Your task to perform on an android device: Open calendar and show me the first week of next month Image 0: 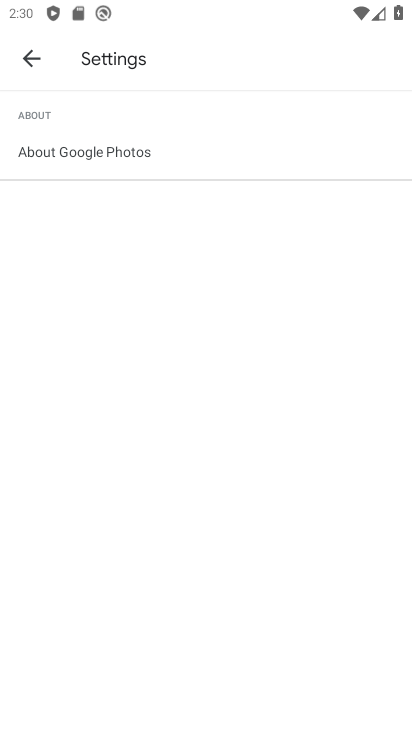
Step 0: press back button
Your task to perform on an android device: Open calendar and show me the first week of next month Image 1: 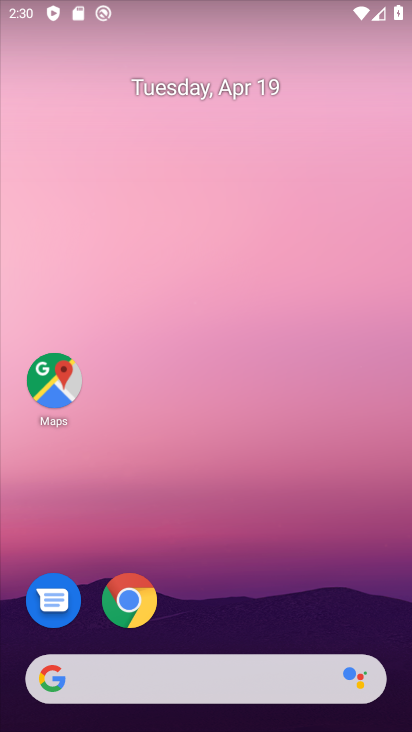
Step 1: drag from (344, 604) to (328, 136)
Your task to perform on an android device: Open calendar and show me the first week of next month Image 2: 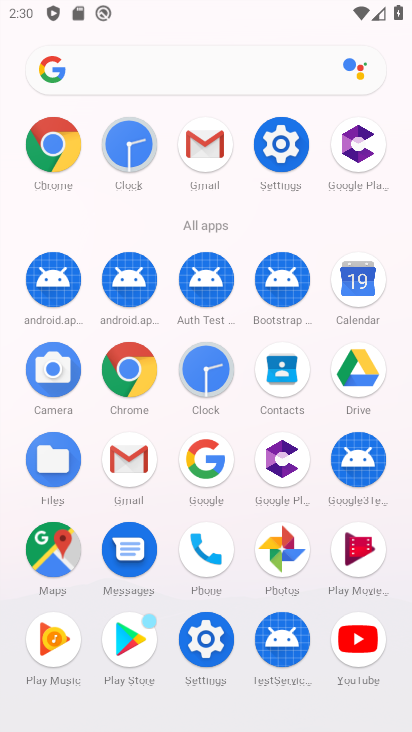
Step 2: click (363, 279)
Your task to perform on an android device: Open calendar and show me the first week of next month Image 3: 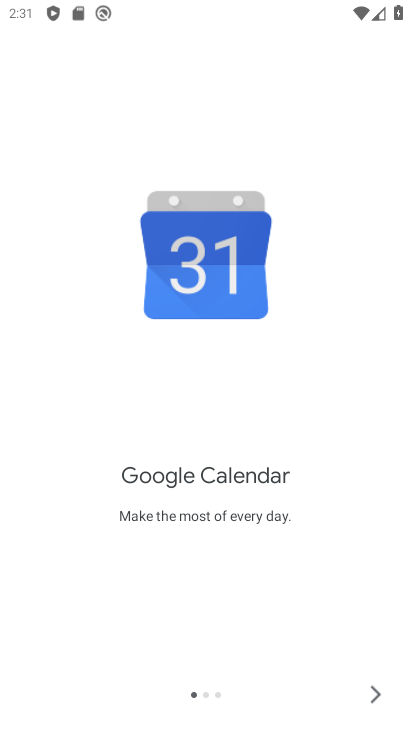
Step 3: click (372, 692)
Your task to perform on an android device: Open calendar and show me the first week of next month Image 4: 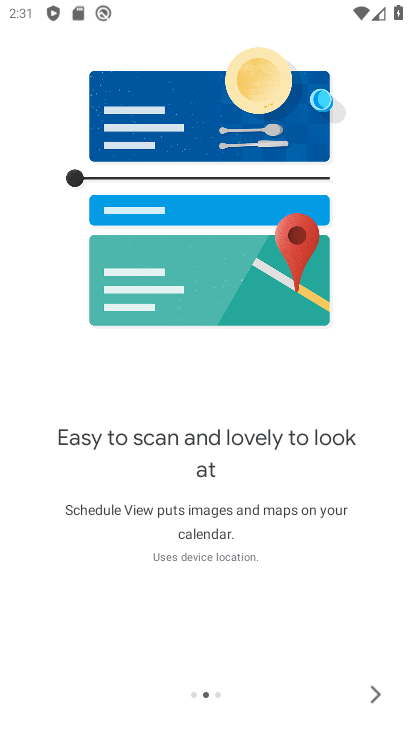
Step 4: click (372, 692)
Your task to perform on an android device: Open calendar and show me the first week of next month Image 5: 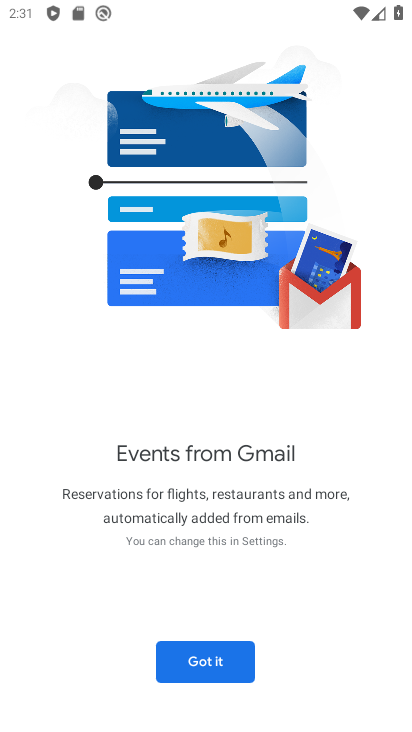
Step 5: click (203, 661)
Your task to perform on an android device: Open calendar and show me the first week of next month Image 6: 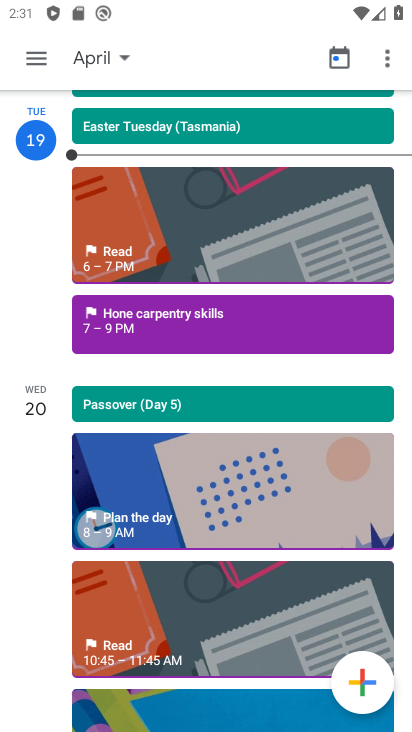
Step 6: click (33, 57)
Your task to perform on an android device: Open calendar and show me the first week of next month Image 7: 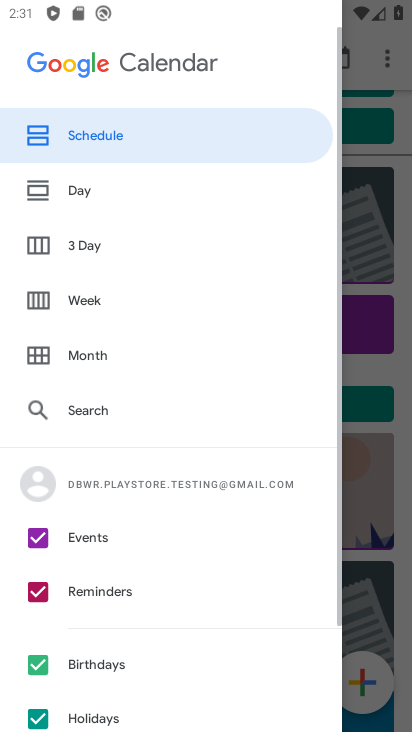
Step 7: click (86, 304)
Your task to perform on an android device: Open calendar and show me the first week of next month Image 8: 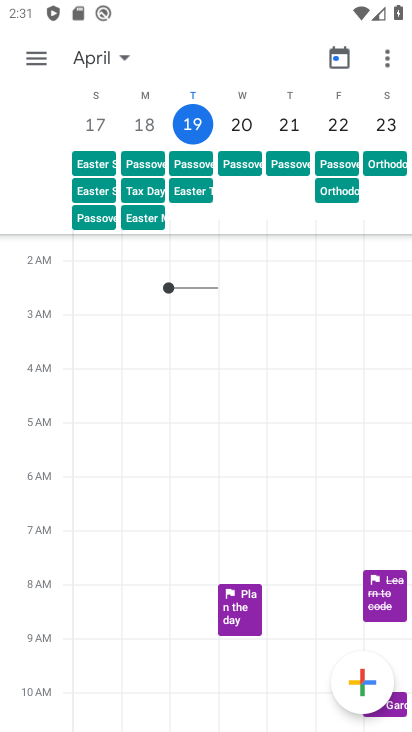
Step 8: click (120, 57)
Your task to perform on an android device: Open calendar and show me the first week of next month Image 9: 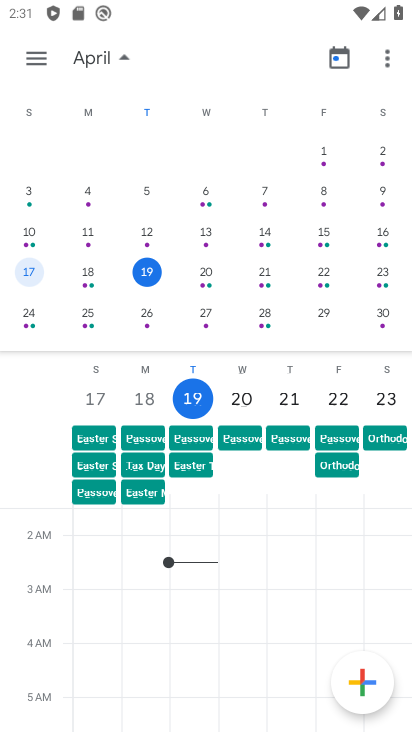
Step 9: drag from (370, 285) to (1, 247)
Your task to perform on an android device: Open calendar and show me the first week of next month Image 10: 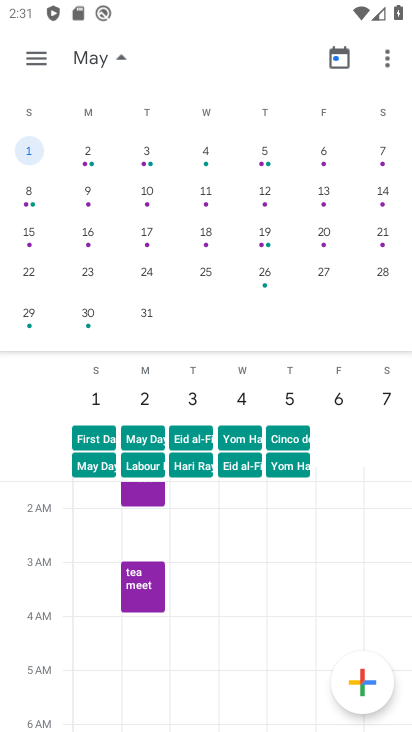
Step 10: click (22, 159)
Your task to perform on an android device: Open calendar and show me the first week of next month Image 11: 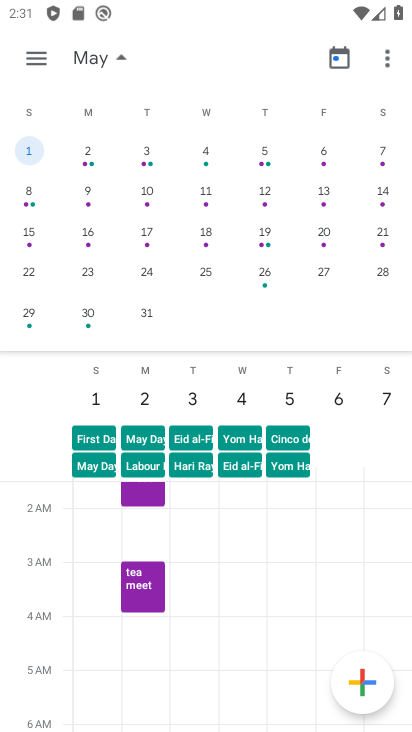
Step 11: task complete